Your task to perform on an android device: Open maps Image 0: 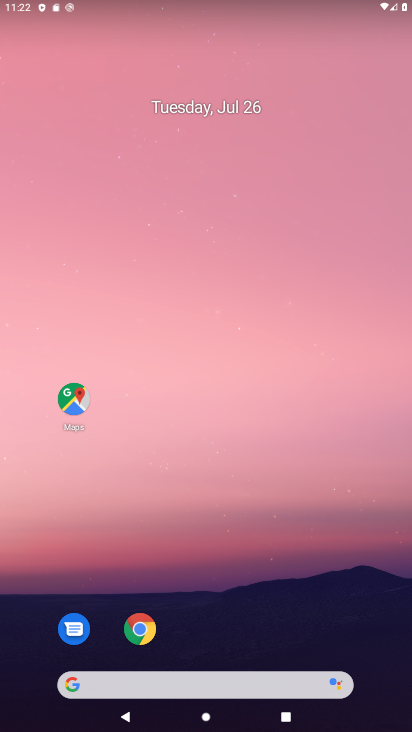
Step 0: click (235, 152)
Your task to perform on an android device: Open maps Image 1: 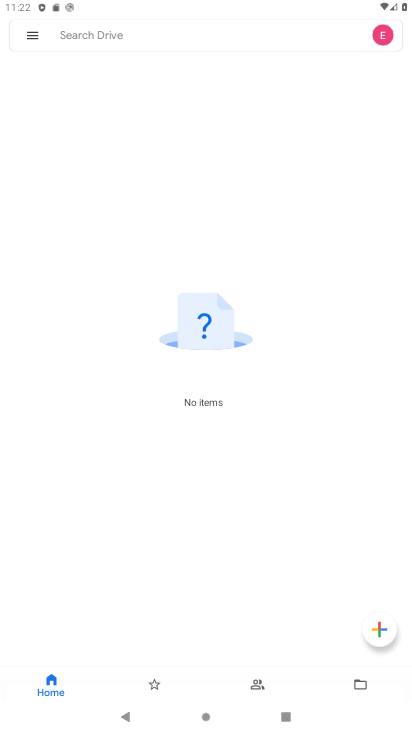
Step 1: press home button
Your task to perform on an android device: Open maps Image 2: 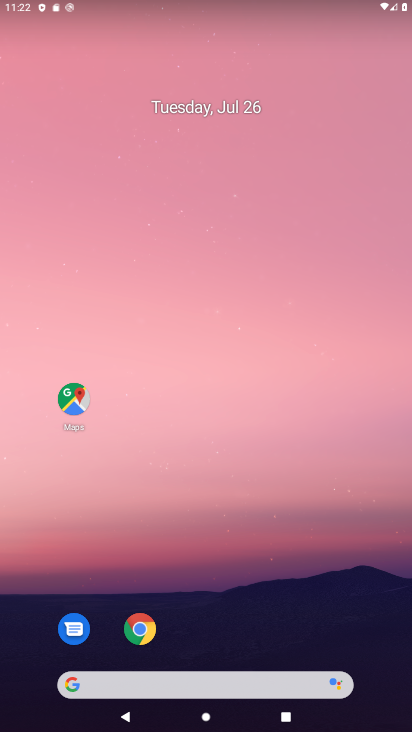
Step 2: drag from (229, 713) to (222, 124)
Your task to perform on an android device: Open maps Image 3: 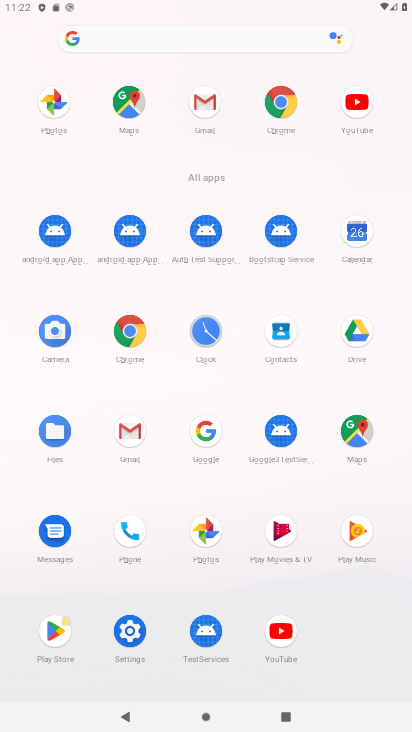
Step 3: click (352, 431)
Your task to perform on an android device: Open maps Image 4: 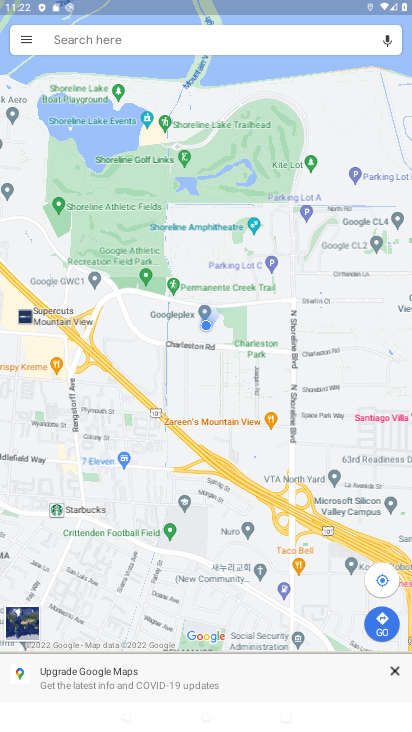
Step 4: task complete